Your task to perform on an android device: Open Chrome and go to settings Image 0: 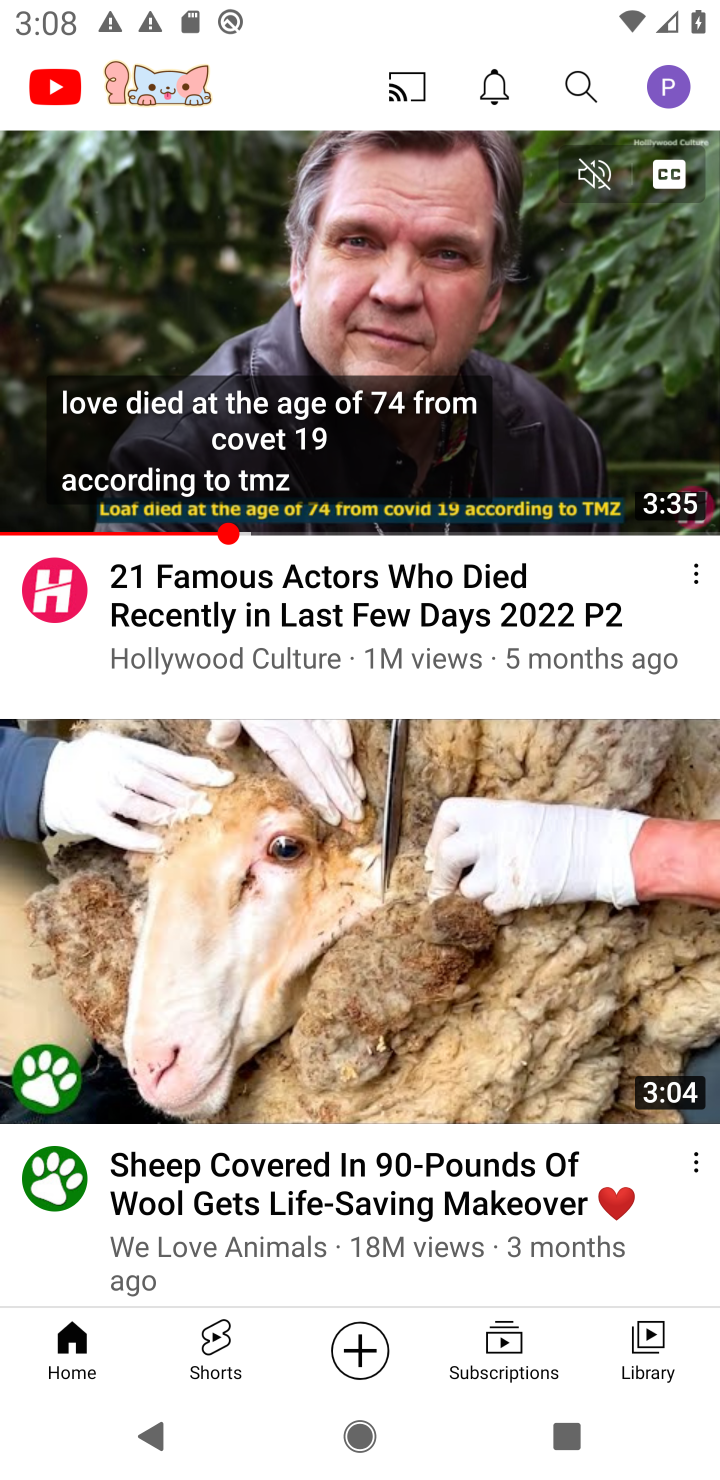
Step 0: task complete